Your task to perform on an android device: turn off priority inbox in the gmail app Image 0: 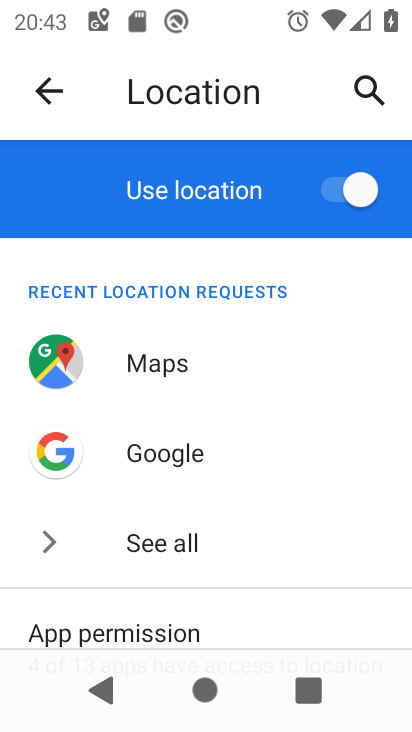
Step 0: press home button
Your task to perform on an android device: turn off priority inbox in the gmail app Image 1: 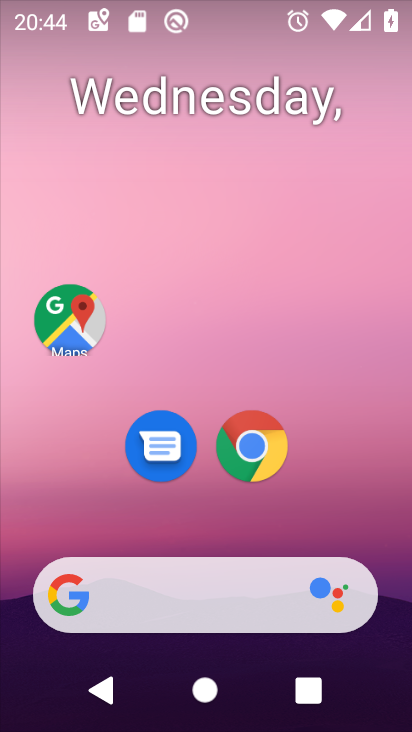
Step 1: drag from (218, 580) to (191, 135)
Your task to perform on an android device: turn off priority inbox in the gmail app Image 2: 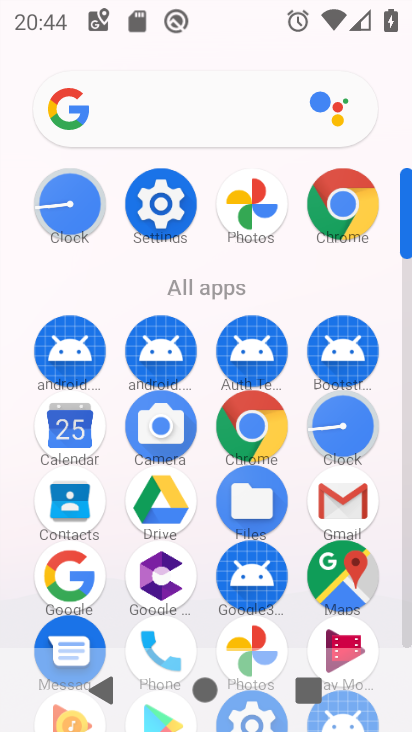
Step 2: click (328, 506)
Your task to perform on an android device: turn off priority inbox in the gmail app Image 3: 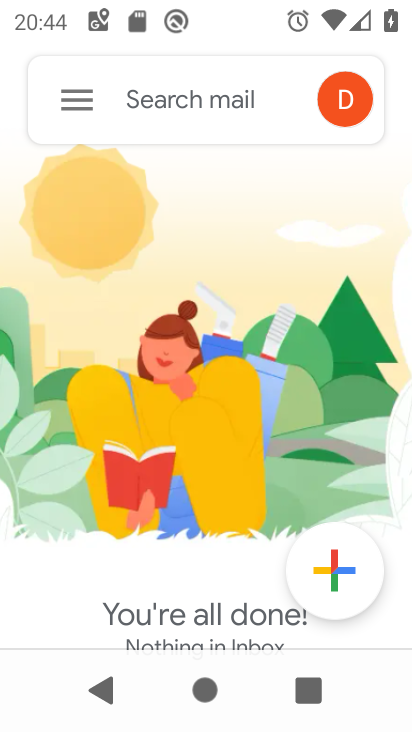
Step 3: click (54, 98)
Your task to perform on an android device: turn off priority inbox in the gmail app Image 4: 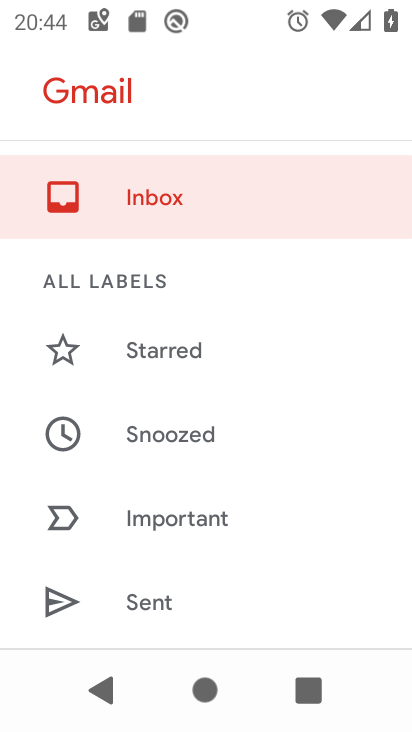
Step 4: drag from (227, 564) to (250, 192)
Your task to perform on an android device: turn off priority inbox in the gmail app Image 5: 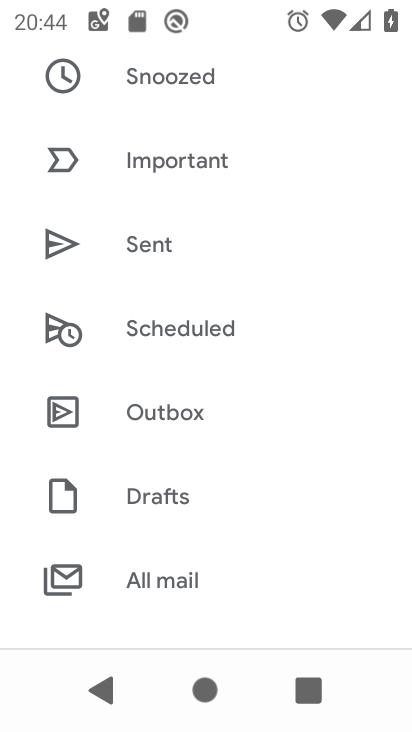
Step 5: drag from (219, 542) to (238, 225)
Your task to perform on an android device: turn off priority inbox in the gmail app Image 6: 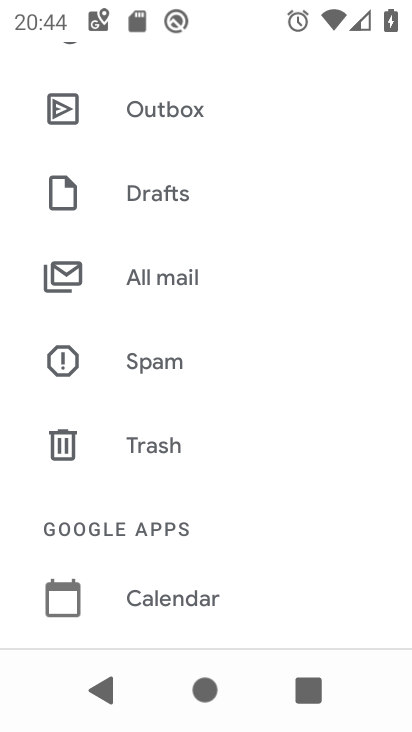
Step 6: drag from (225, 353) to (225, 175)
Your task to perform on an android device: turn off priority inbox in the gmail app Image 7: 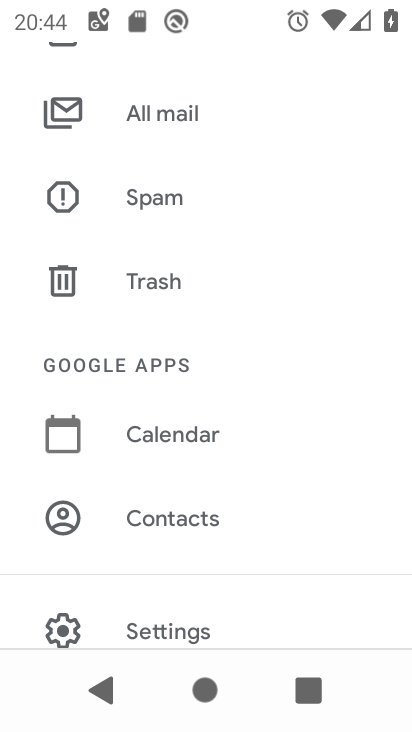
Step 7: drag from (203, 524) to (216, 76)
Your task to perform on an android device: turn off priority inbox in the gmail app Image 8: 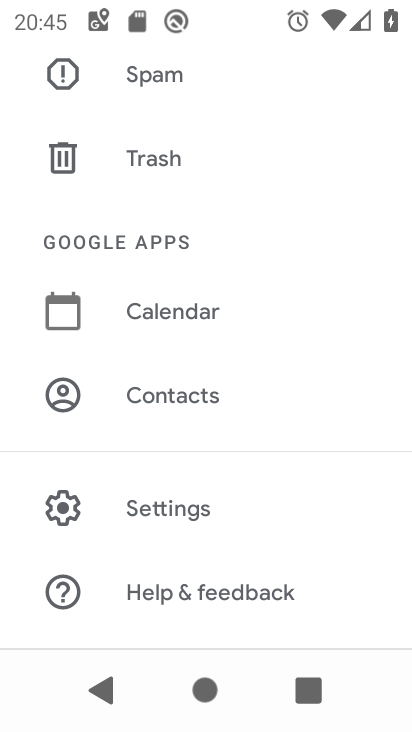
Step 8: click (163, 506)
Your task to perform on an android device: turn off priority inbox in the gmail app Image 9: 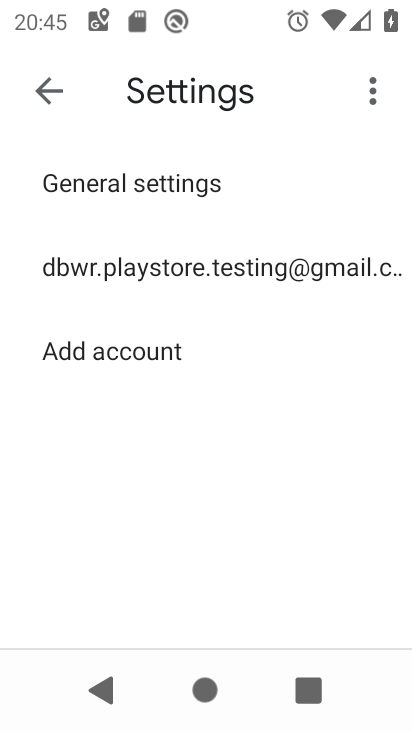
Step 9: click (175, 274)
Your task to perform on an android device: turn off priority inbox in the gmail app Image 10: 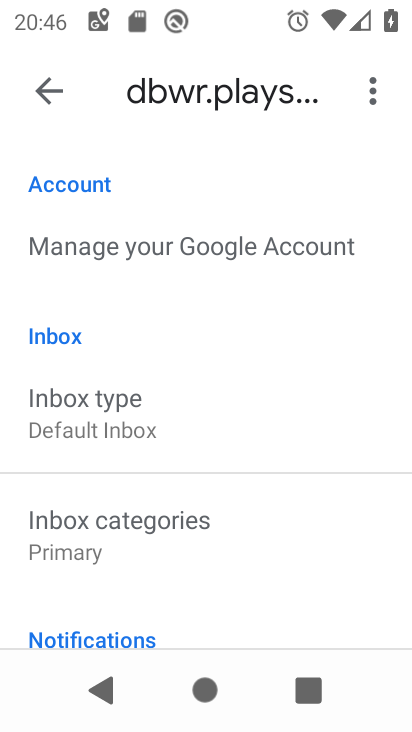
Step 10: click (132, 431)
Your task to perform on an android device: turn off priority inbox in the gmail app Image 11: 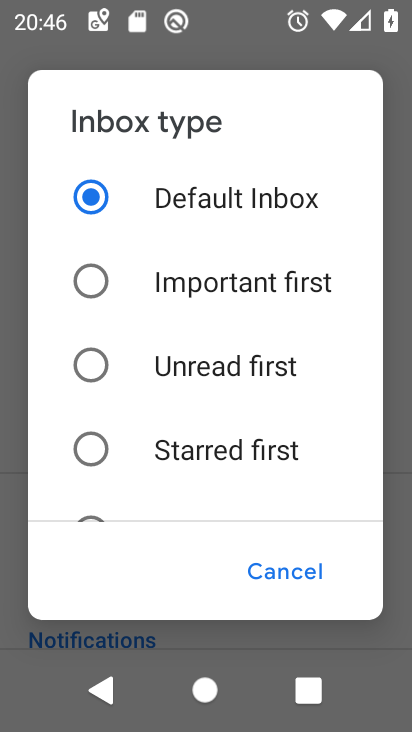
Step 11: click (176, 185)
Your task to perform on an android device: turn off priority inbox in the gmail app Image 12: 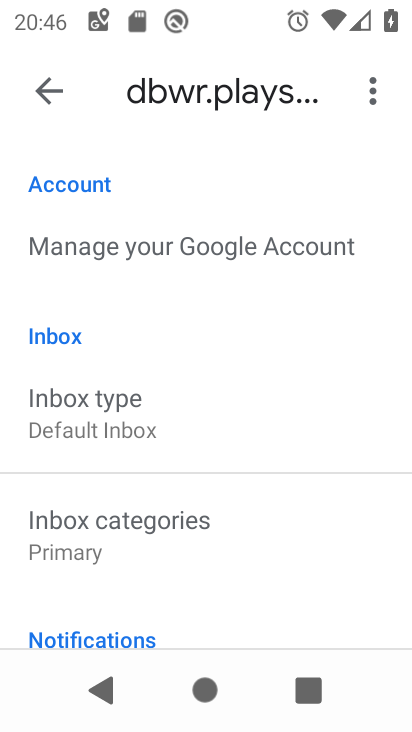
Step 12: task complete